Your task to perform on an android device: Open wifi settings Image 0: 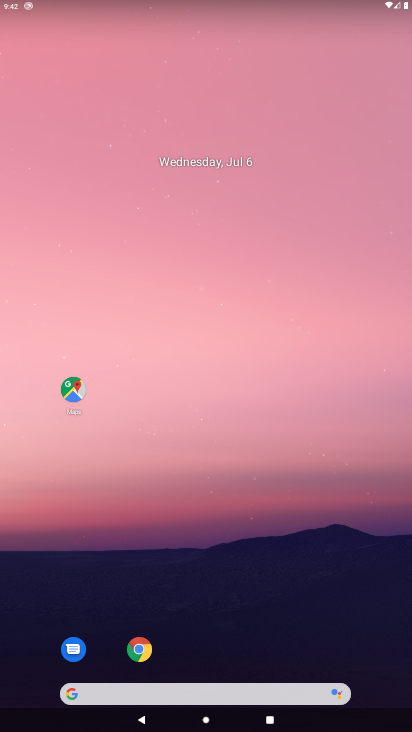
Step 0: drag from (219, 649) to (242, 65)
Your task to perform on an android device: Open wifi settings Image 1: 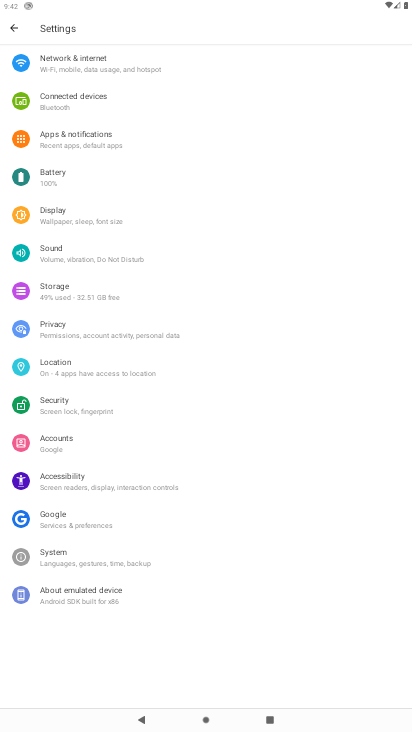
Step 1: click (54, 66)
Your task to perform on an android device: Open wifi settings Image 2: 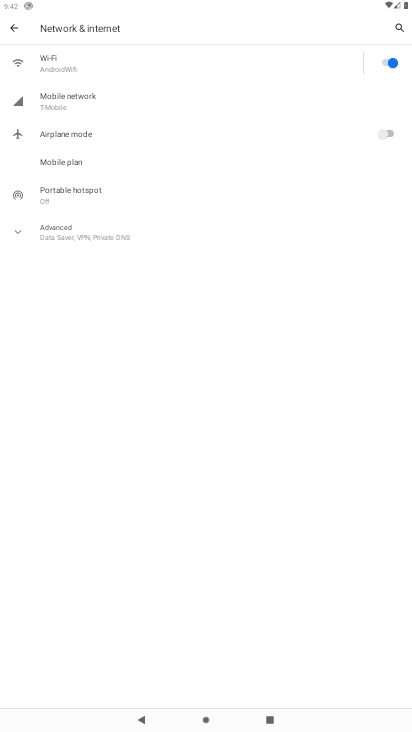
Step 2: click (104, 58)
Your task to perform on an android device: Open wifi settings Image 3: 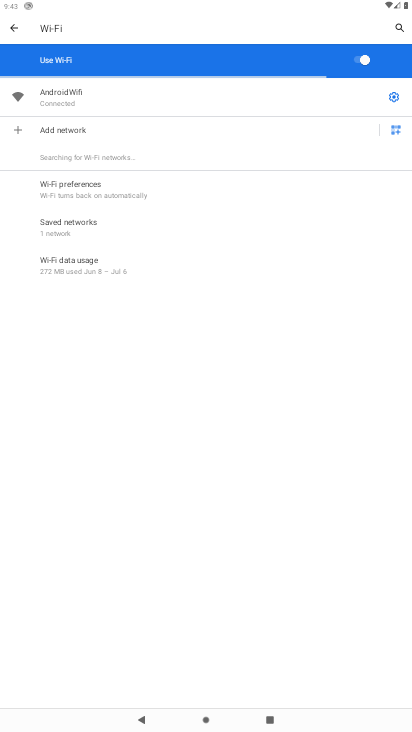
Step 3: task complete